Your task to perform on an android device: change text size in settings app Image 0: 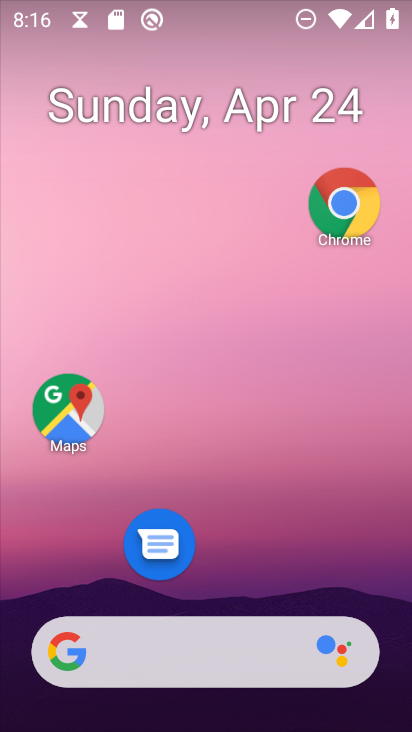
Step 0: drag from (235, 562) to (315, 39)
Your task to perform on an android device: change text size in settings app Image 1: 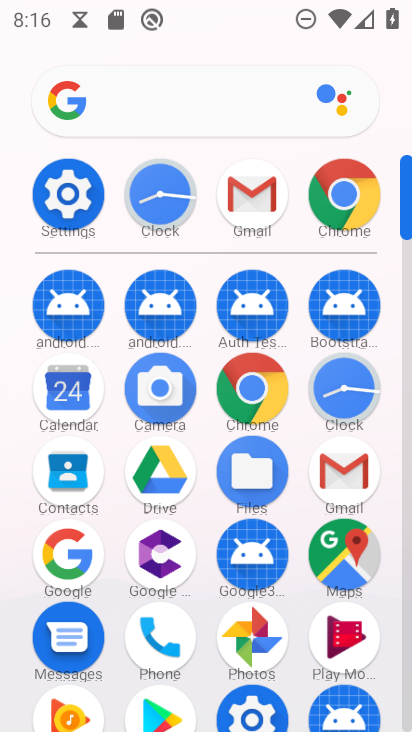
Step 1: click (62, 192)
Your task to perform on an android device: change text size in settings app Image 2: 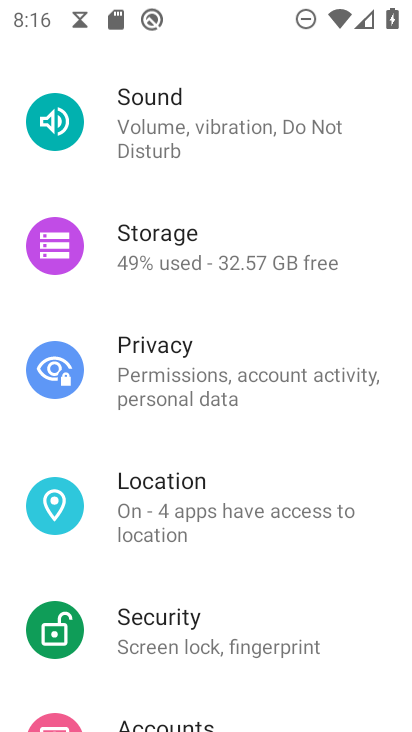
Step 2: drag from (246, 647) to (275, 155)
Your task to perform on an android device: change text size in settings app Image 3: 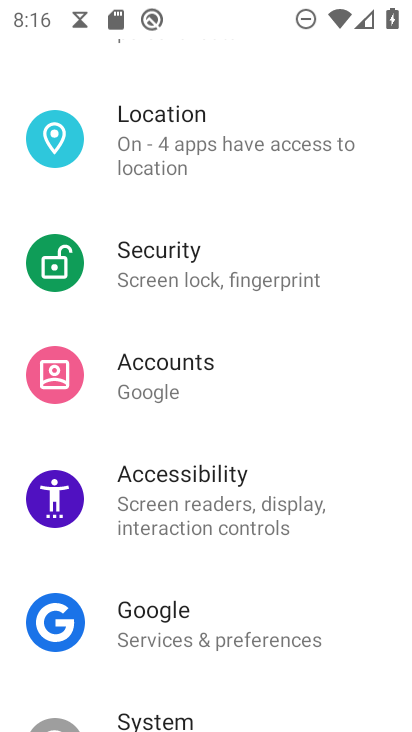
Step 3: drag from (189, 631) to (311, 124)
Your task to perform on an android device: change text size in settings app Image 4: 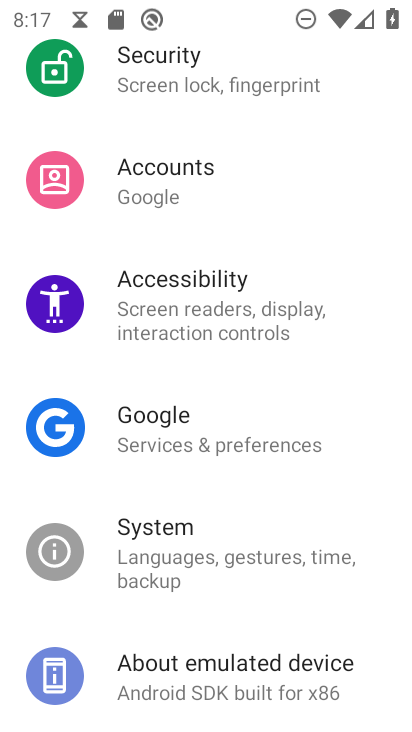
Step 4: drag from (324, 169) to (270, 627)
Your task to perform on an android device: change text size in settings app Image 5: 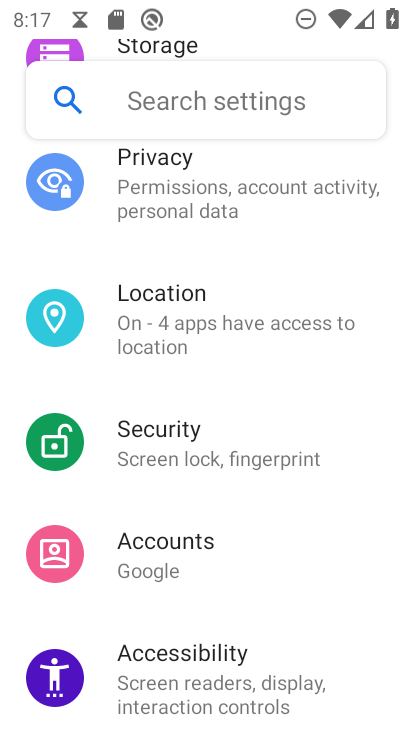
Step 5: drag from (314, 248) to (224, 593)
Your task to perform on an android device: change text size in settings app Image 6: 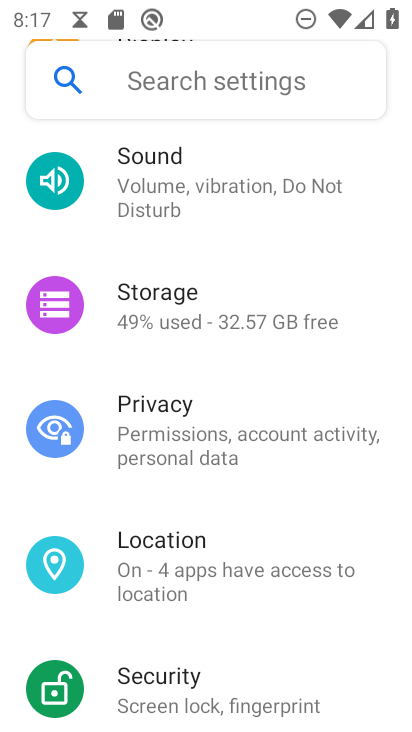
Step 6: drag from (267, 283) to (240, 625)
Your task to perform on an android device: change text size in settings app Image 7: 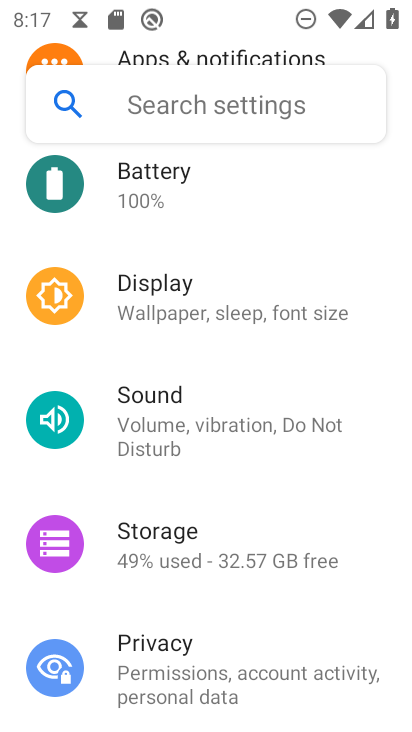
Step 7: click (212, 303)
Your task to perform on an android device: change text size in settings app Image 8: 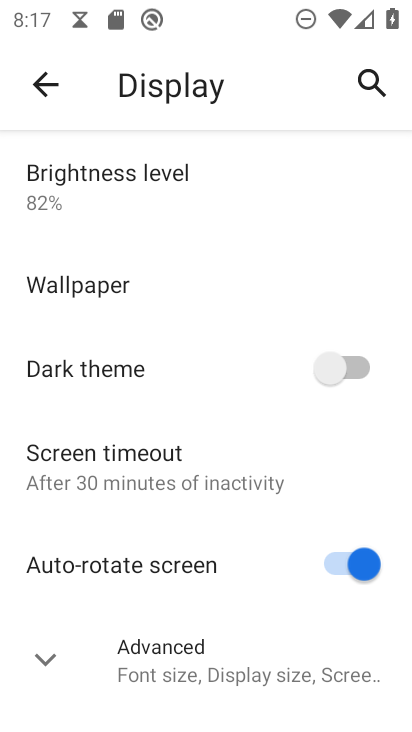
Step 8: click (64, 652)
Your task to perform on an android device: change text size in settings app Image 9: 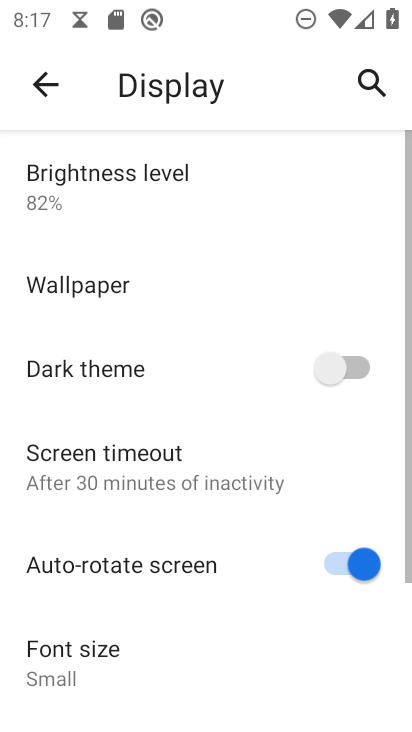
Step 9: drag from (128, 578) to (276, 139)
Your task to perform on an android device: change text size in settings app Image 10: 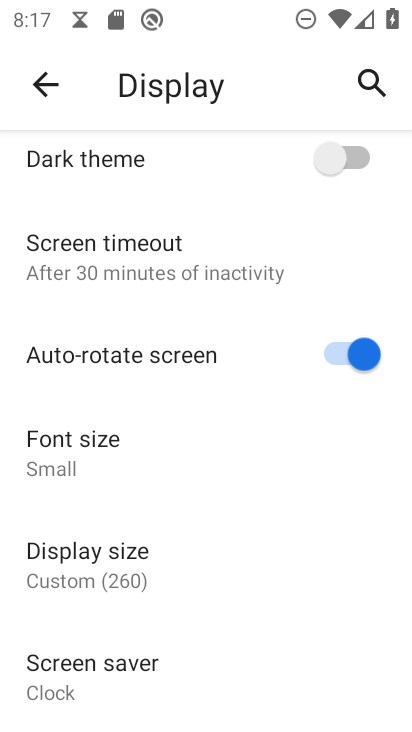
Step 10: click (89, 441)
Your task to perform on an android device: change text size in settings app Image 11: 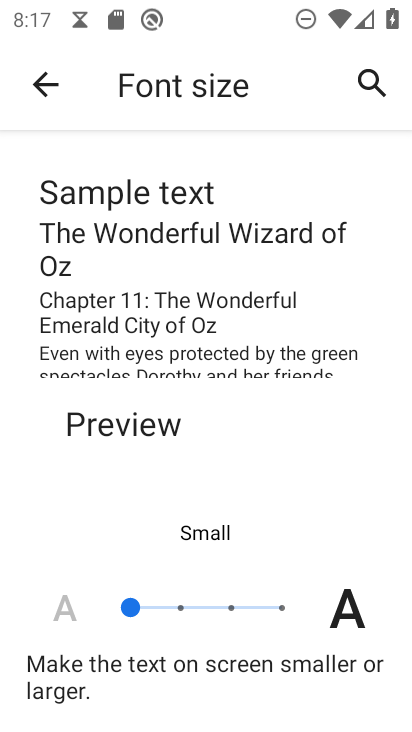
Step 11: click (178, 607)
Your task to perform on an android device: change text size in settings app Image 12: 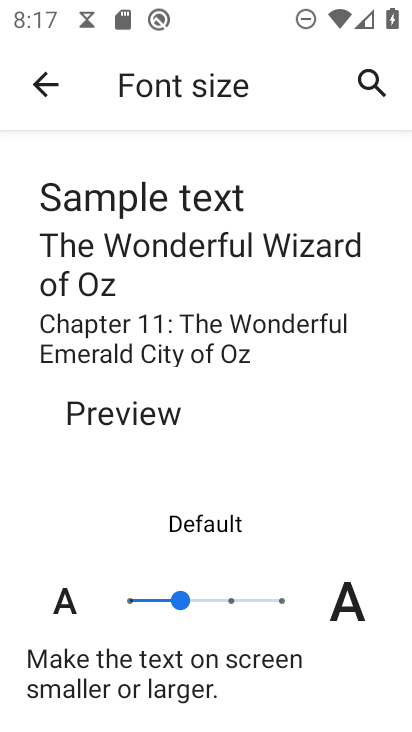
Step 12: task complete